Your task to perform on an android device: turn off improve location accuracy Image 0: 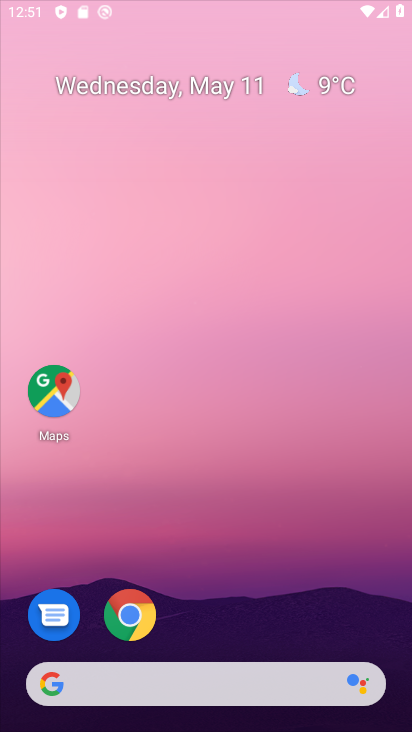
Step 0: drag from (302, 611) to (303, 76)
Your task to perform on an android device: turn off improve location accuracy Image 1: 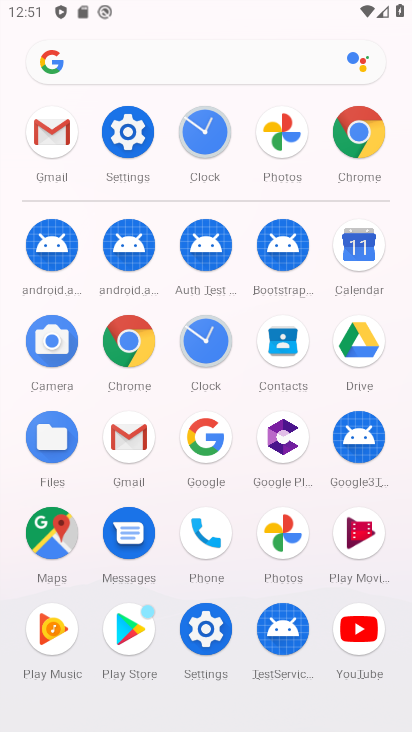
Step 1: click (136, 166)
Your task to perform on an android device: turn off improve location accuracy Image 2: 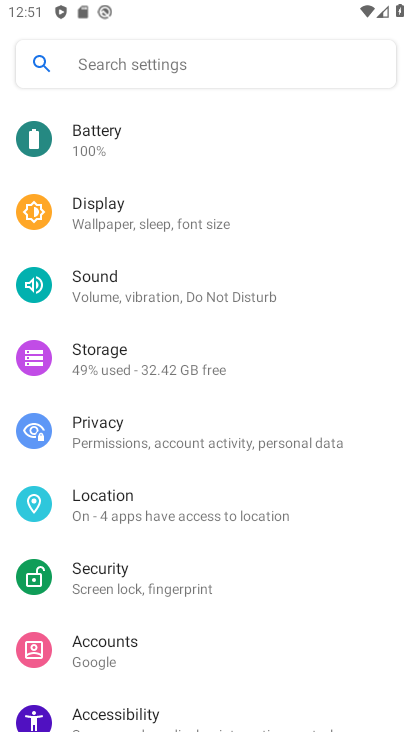
Step 2: click (188, 521)
Your task to perform on an android device: turn off improve location accuracy Image 3: 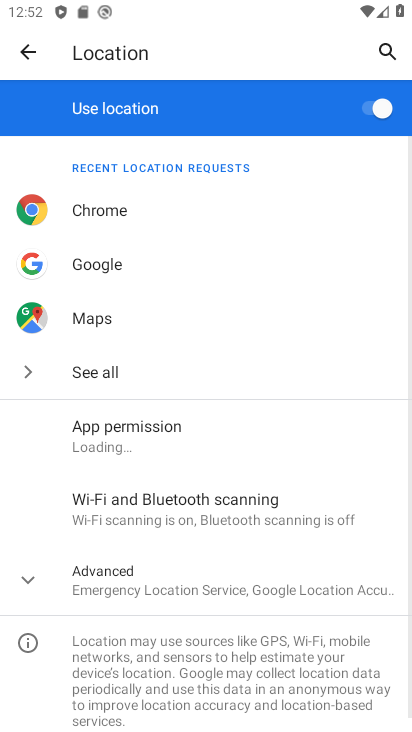
Step 3: drag from (176, 558) to (199, 331)
Your task to perform on an android device: turn off improve location accuracy Image 4: 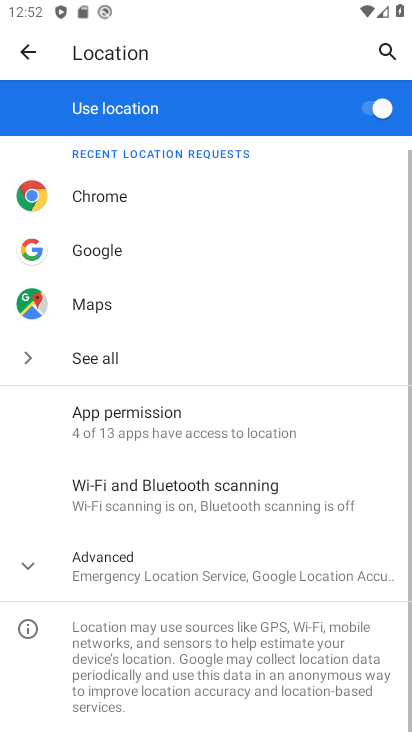
Step 4: click (152, 429)
Your task to perform on an android device: turn off improve location accuracy Image 5: 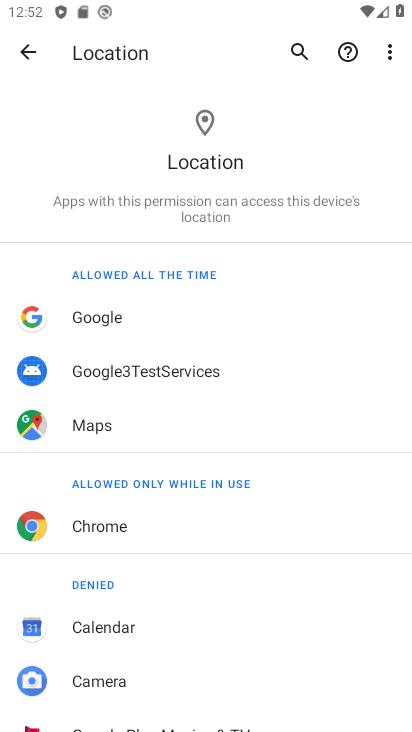
Step 5: click (14, 55)
Your task to perform on an android device: turn off improve location accuracy Image 6: 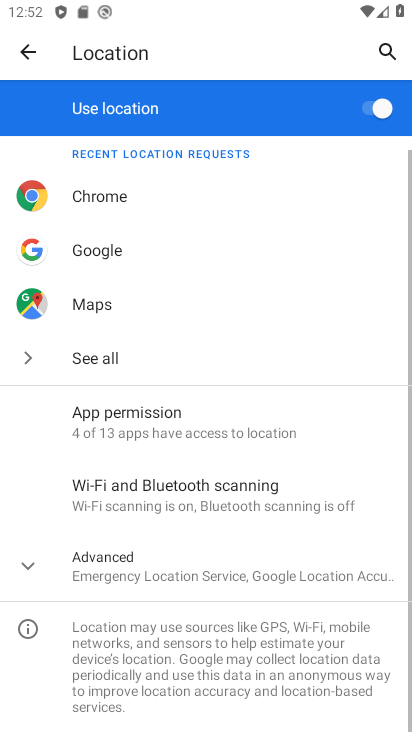
Step 6: click (138, 578)
Your task to perform on an android device: turn off improve location accuracy Image 7: 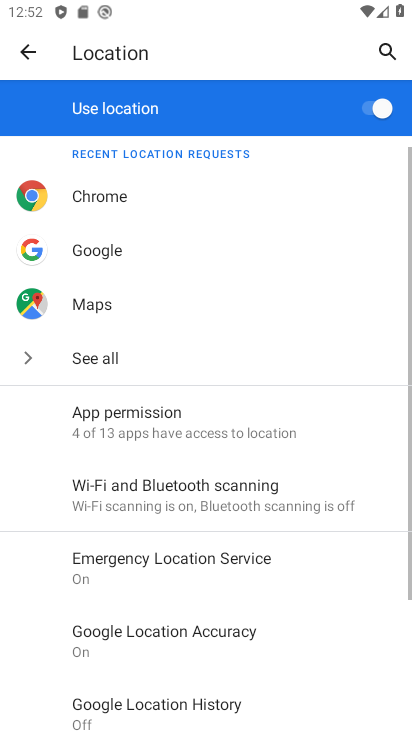
Step 7: drag from (138, 578) to (195, 263)
Your task to perform on an android device: turn off improve location accuracy Image 8: 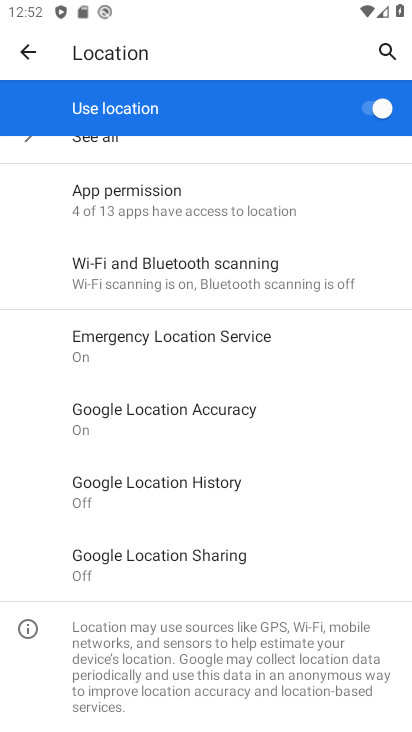
Step 8: click (183, 488)
Your task to perform on an android device: turn off improve location accuracy Image 9: 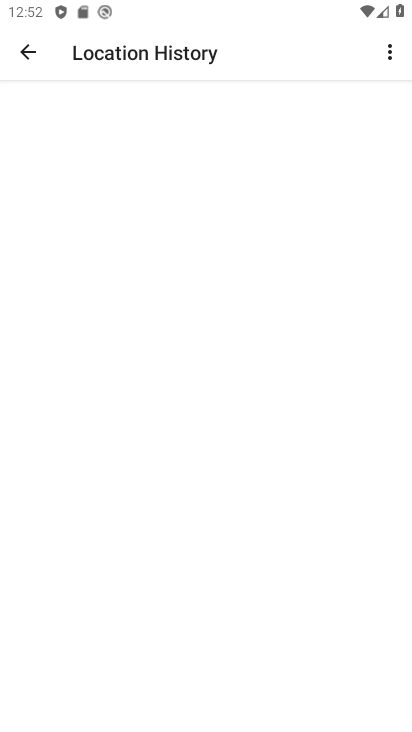
Step 9: task complete